Your task to perform on an android device: Add asus zenbook to the cart on bestbuy Image 0: 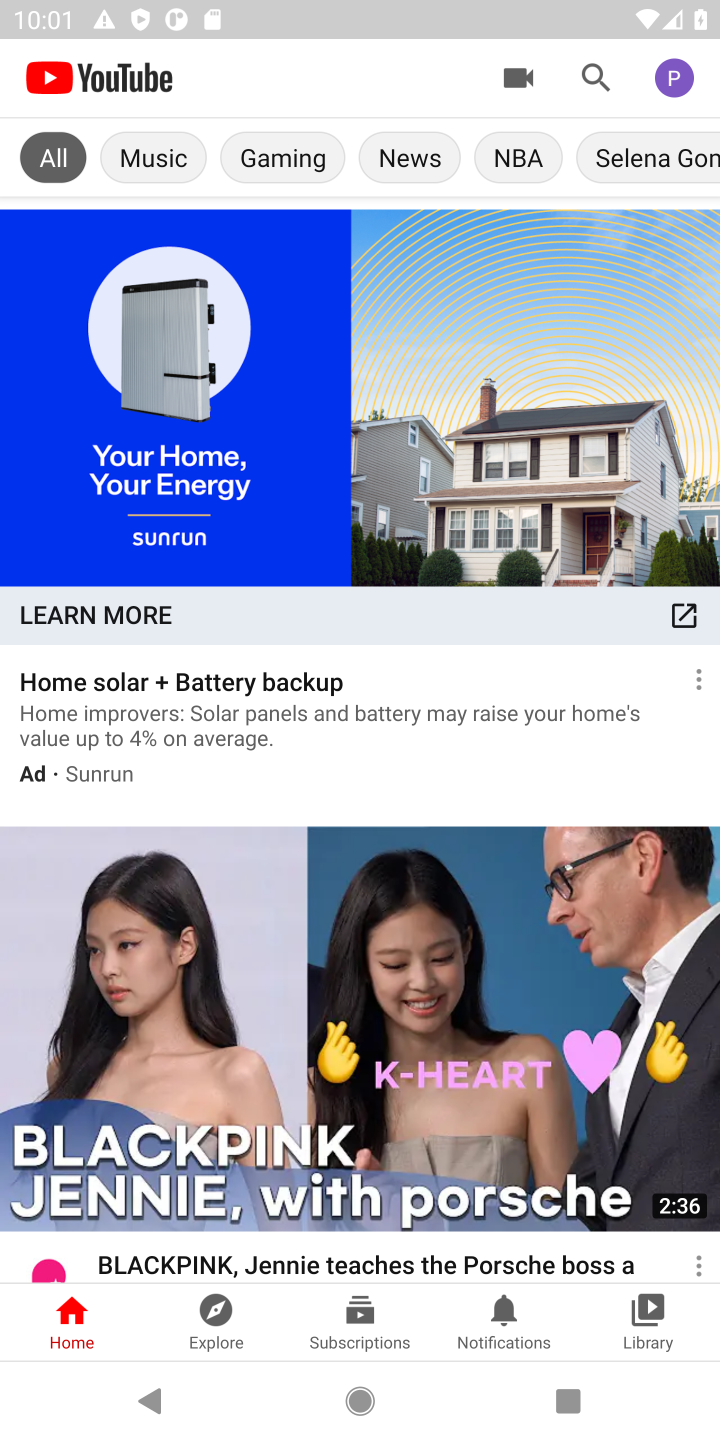
Step 0: press home button
Your task to perform on an android device: Add asus zenbook to the cart on bestbuy Image 1: 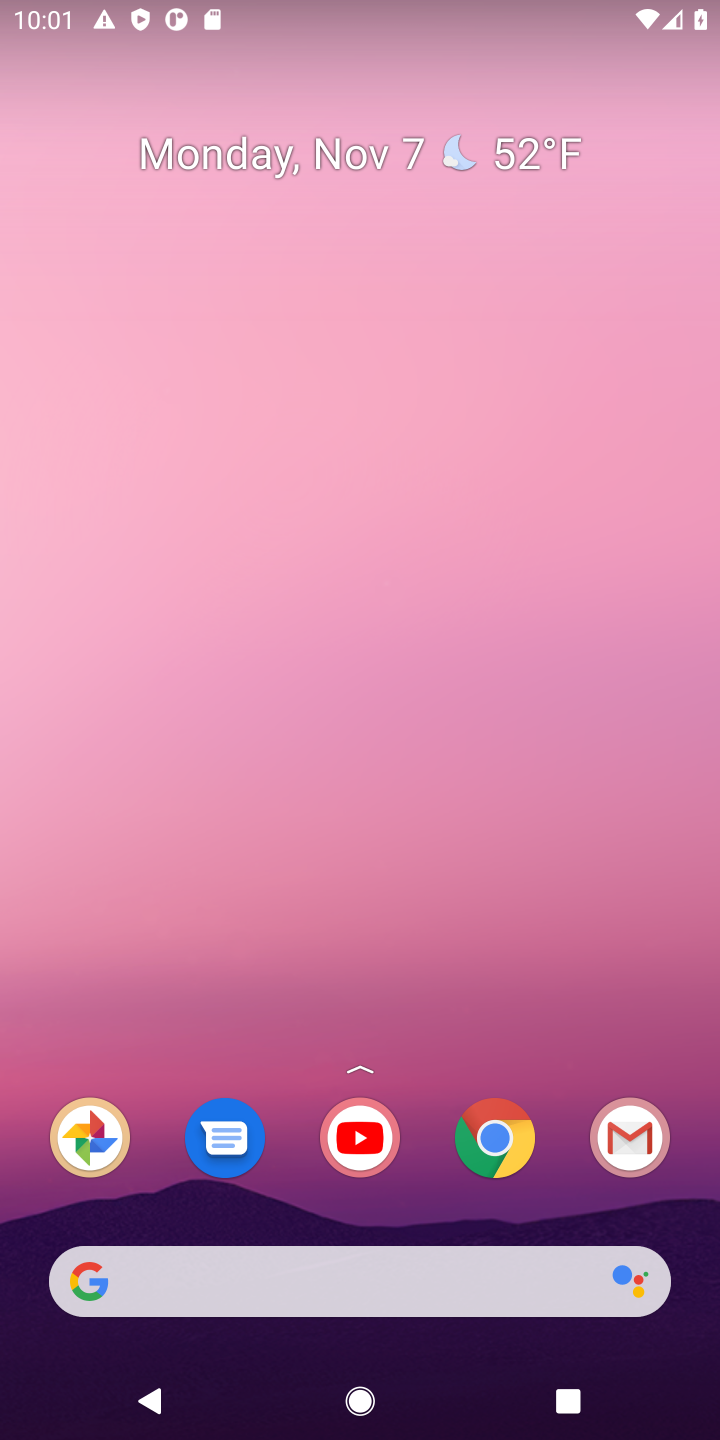
Step 1: drag from (446, 1226) to (392, 306)
Your task to perform on an android device: Add asus zenbook to the cart on bestbuy Image 2: 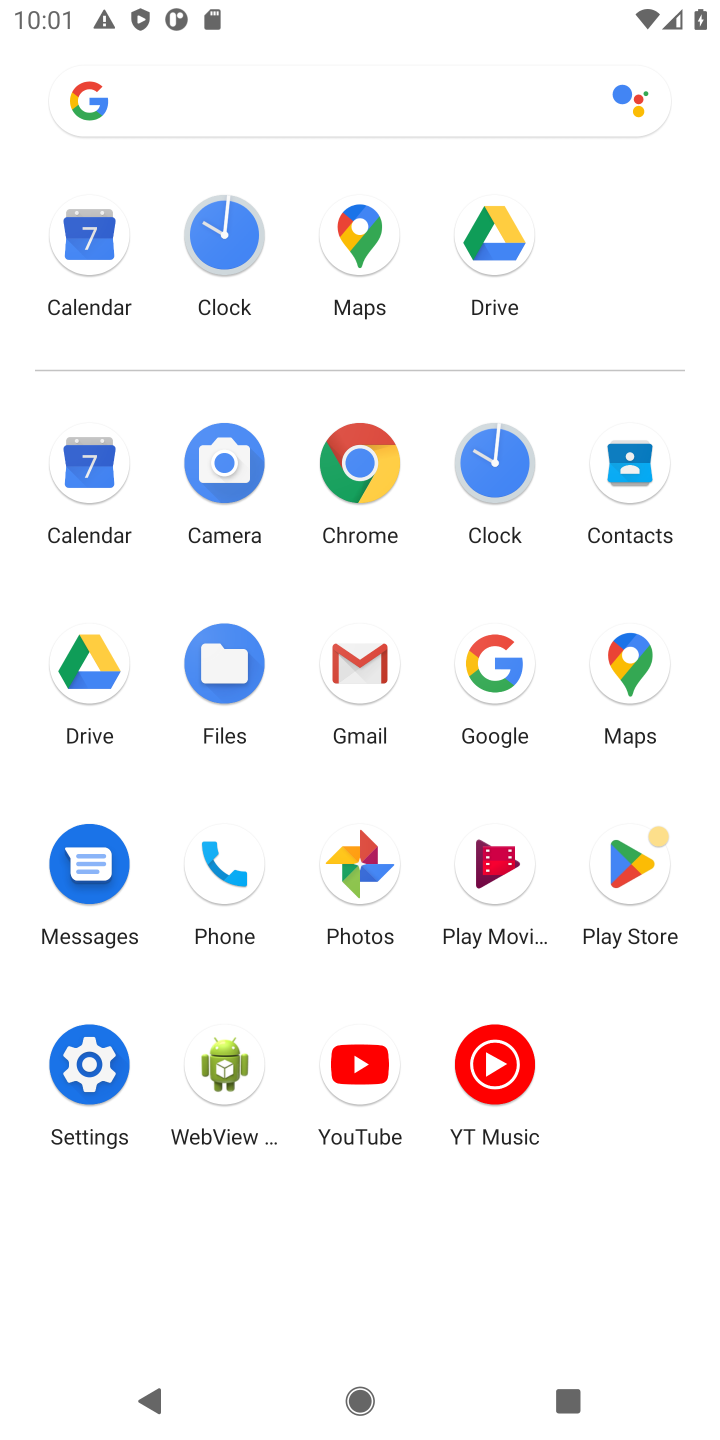
Step 2: click (357, 461)
Your task to perform on an android device: Add asus zenbook to the cart on bestbuy Image 3: 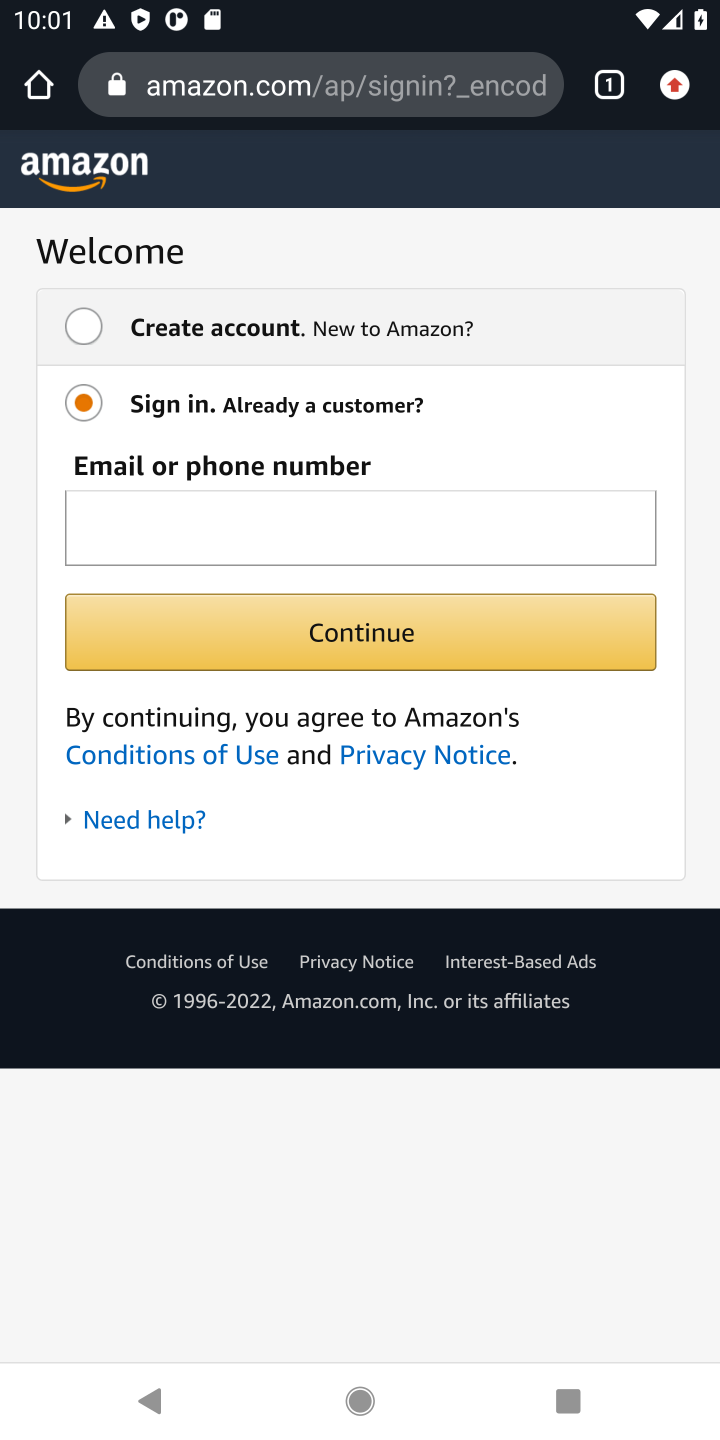
Step 3: click (425, 93)
Your task to perform on an android device: Add asus zenbook to the cart on bestbuy Image 4: 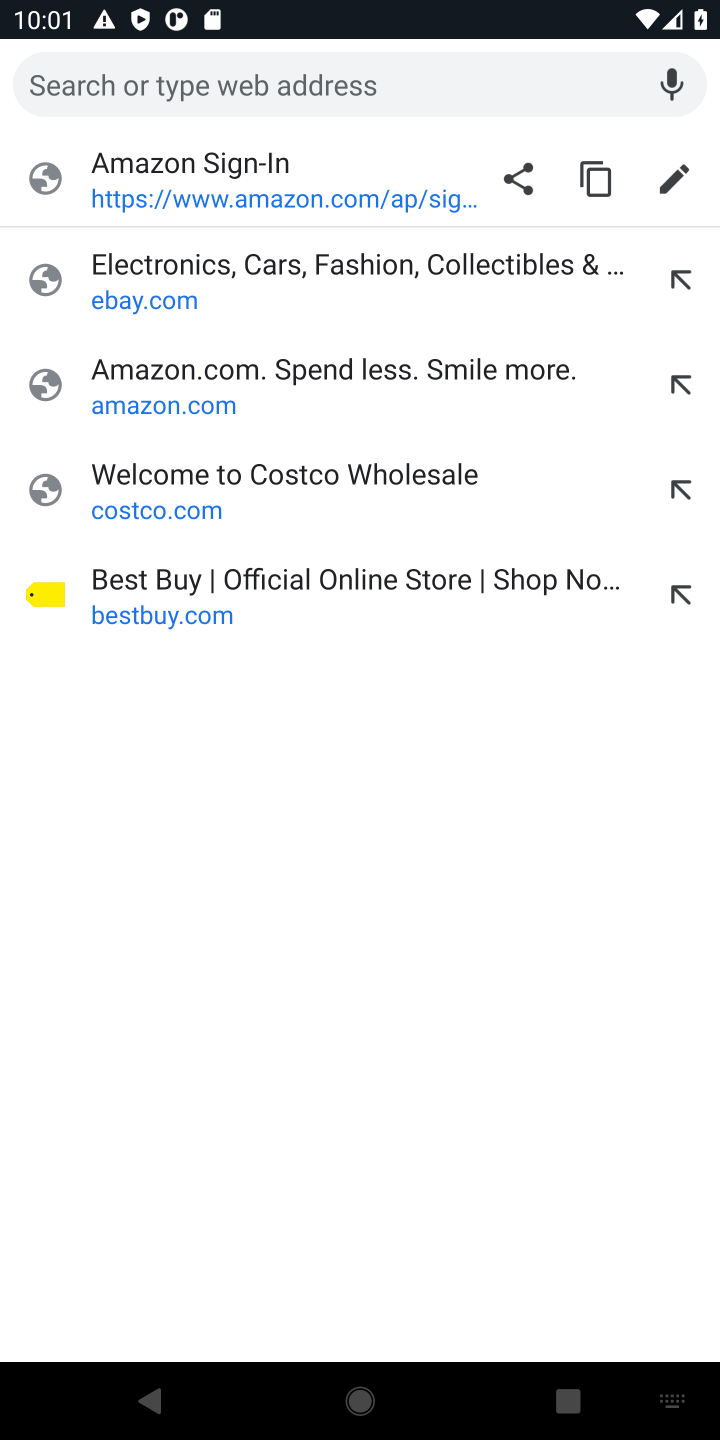
Step 4: type "bestbuy.com"
Your task to perform on an android device: Add asus zenbook to the cart on bestbuy Image 5: 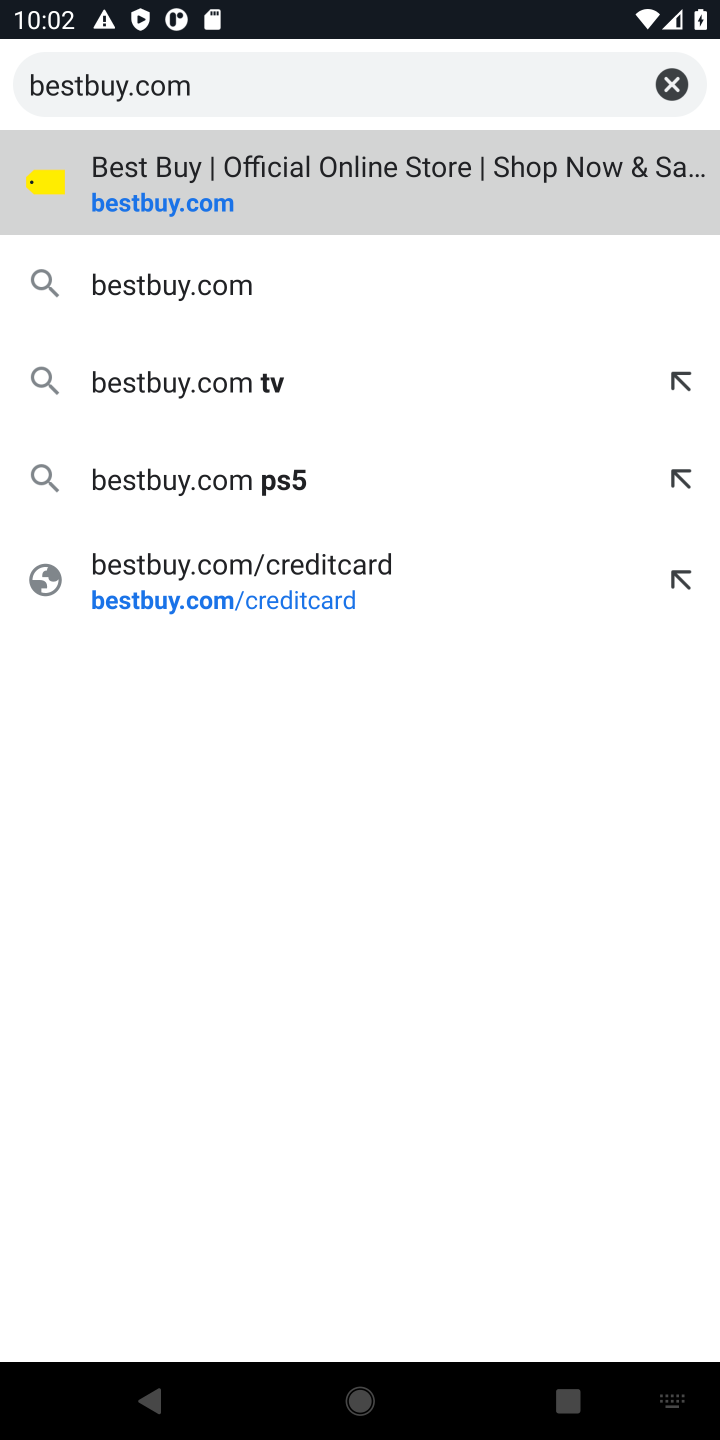
Step 5: press enter
Your task to perform on an android device: Add asus zenbook to the cart on bestbuy Image 6: 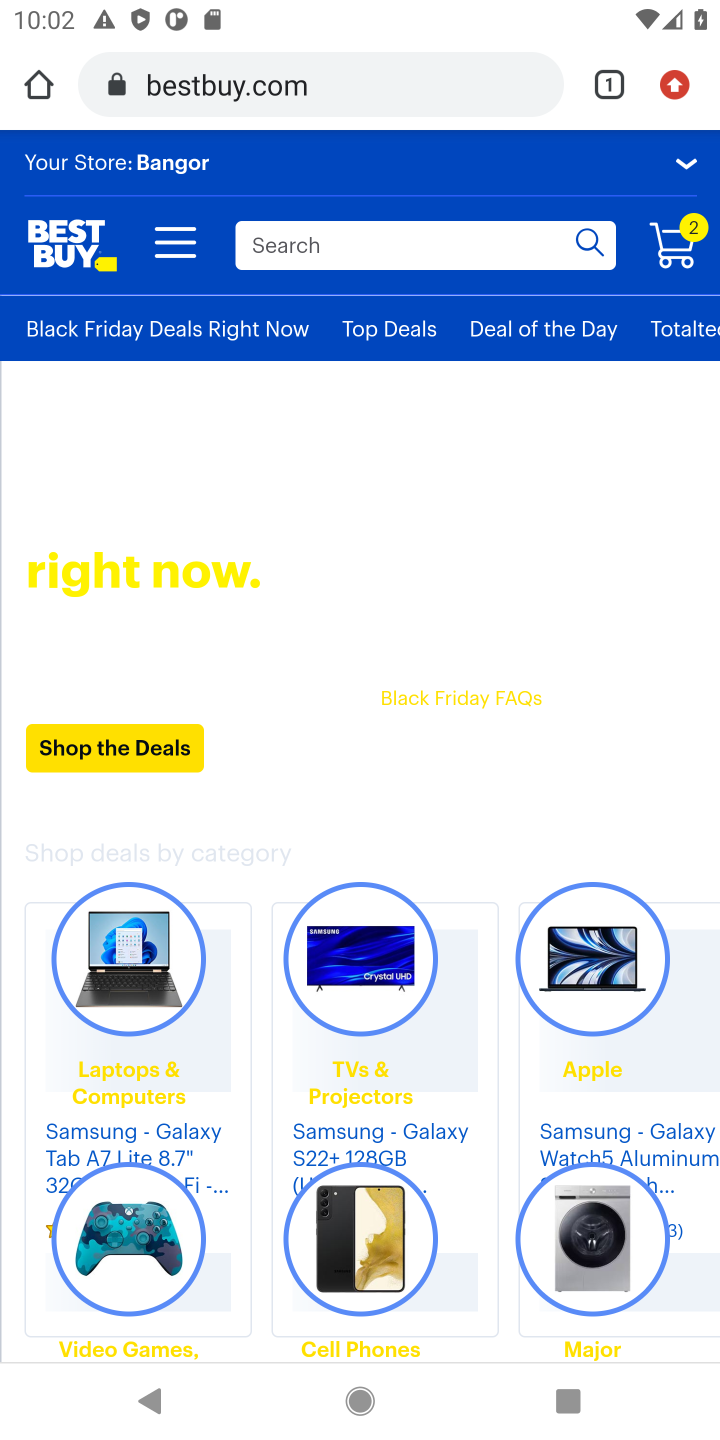
Step 6: click (435, 247)
Your task to perform on an android device: Add asus zenbook to the cart on bestbuy Image 7: 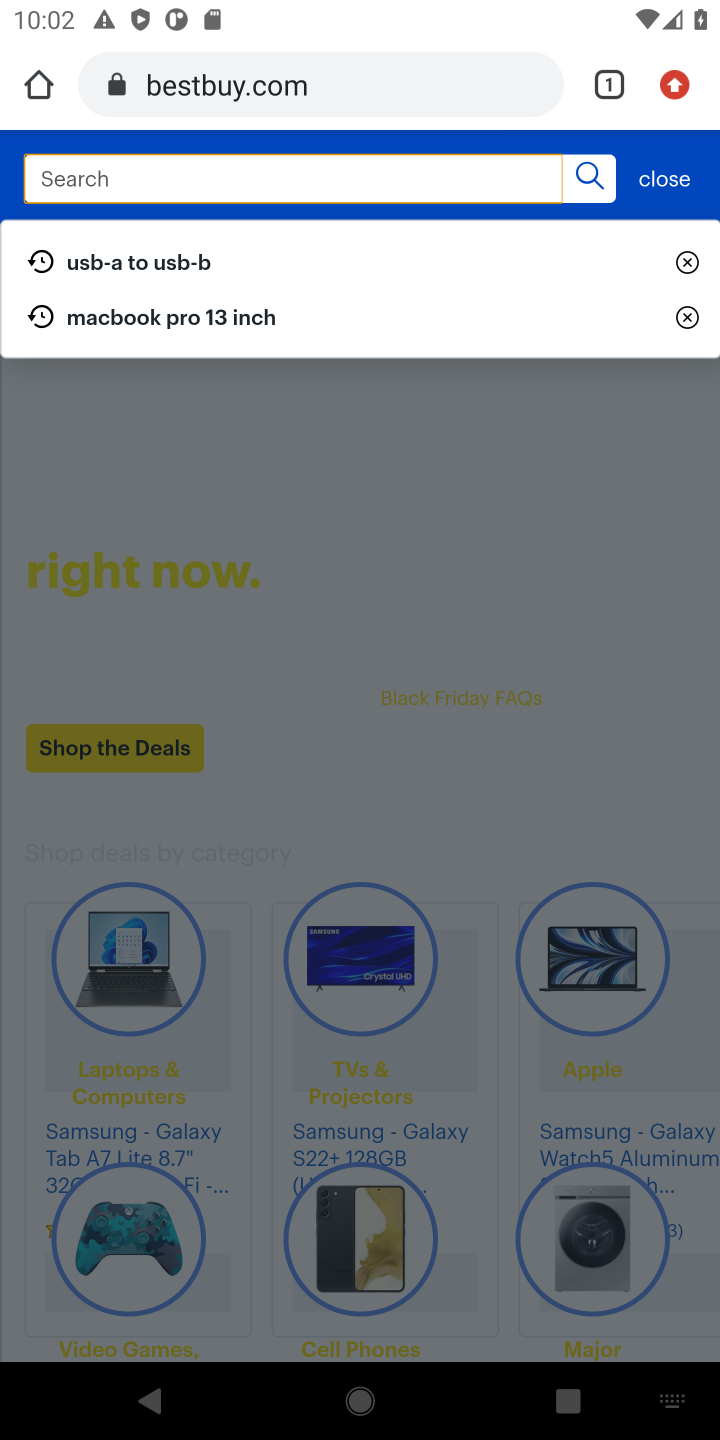
Step 7: type "asus zenbook"
Your task to perform on an android device: Add asus zenbook to the cart on bestbuy Image 8: 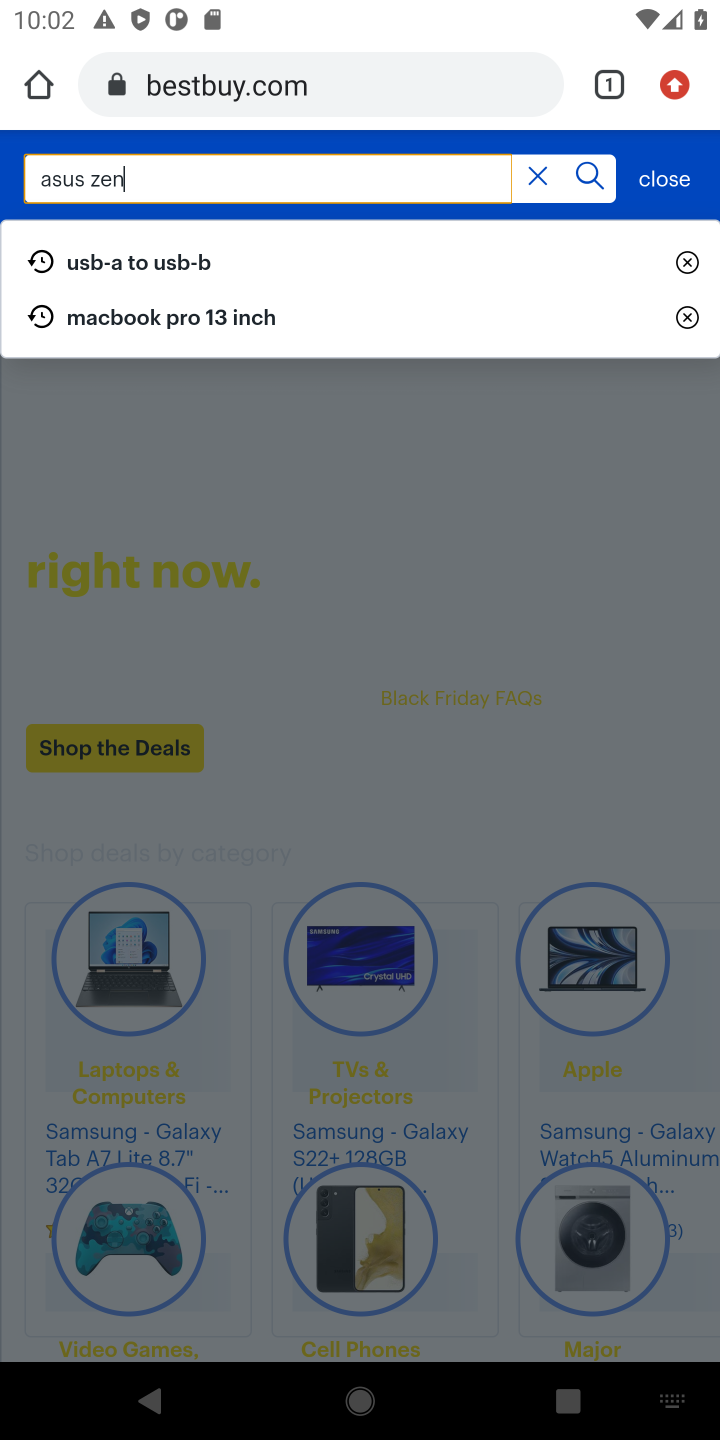
Step 8: press enter
Your task to perform on an android device: Add asus zenbook to the cart on bestbuy Image 9: 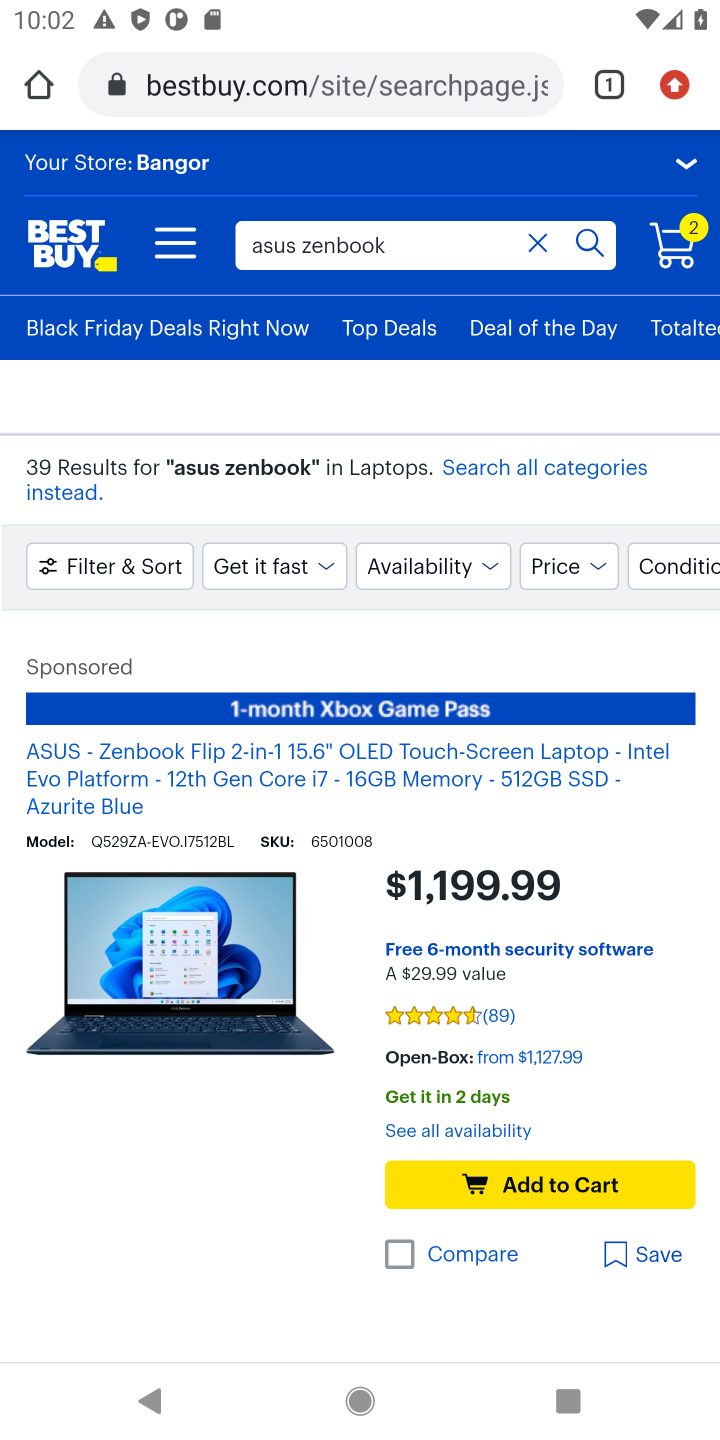
Step 9: click (570, 1177)
Your task to perform on an android device: Add asus zenbook to the cart on bestbuy Image 10: 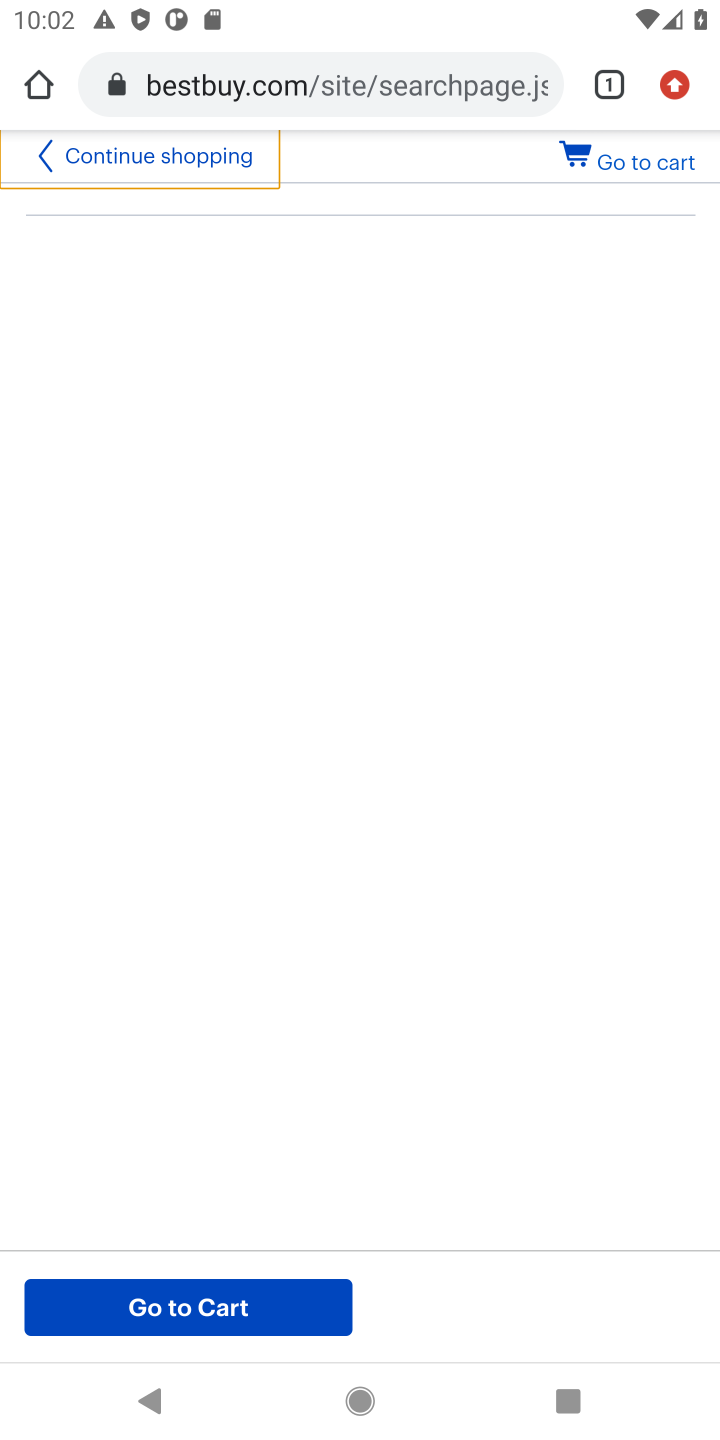
Step 10: click (435, 829)
Your task to perform on an android device: Add asus zenbook to the cart on bestbuy Image 11: 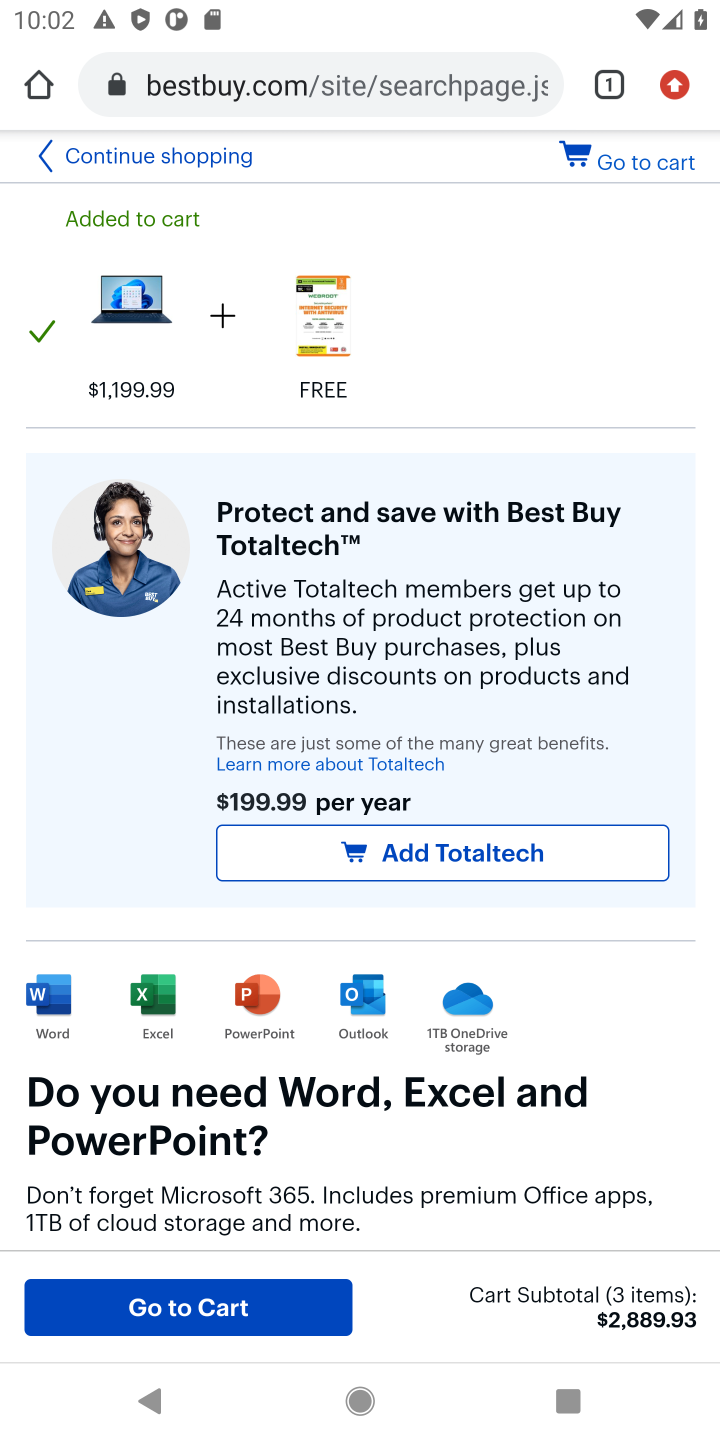
Step 11: task complete